Your task to perform on an android device: find which apps use the phone's location Image 0: 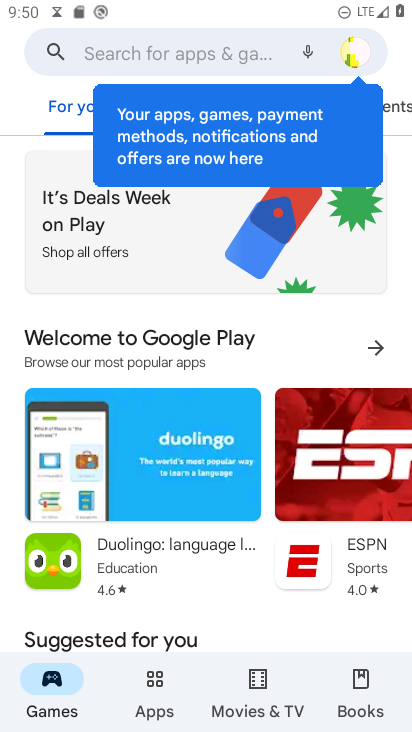
Step 0: press home button
Your task to perform on an android device: find which apps use the phone's location Image 1: 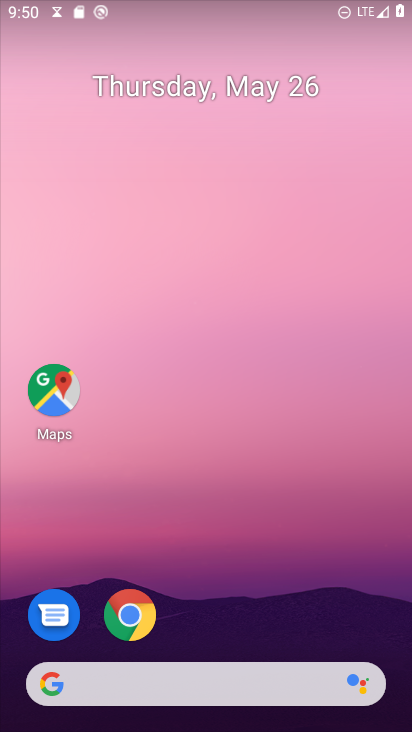
Step 1: drag from (263, 610) to (311, 239)
Your task to perform on an android device: find which apps use the phone's location Image 2: 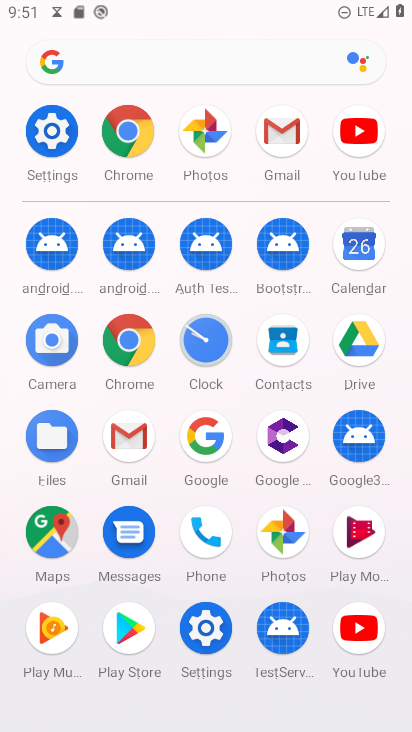
Step 2: click (54, 123)
Your task to perform on an android device: find which apps use the phone's location Image 3: 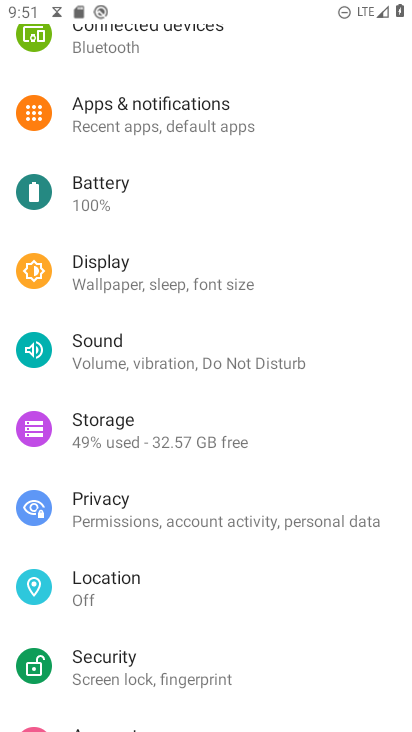
Step 3: click (142, 586)
Your task to perform on an android device: find which apps use the phone's location Image 4: 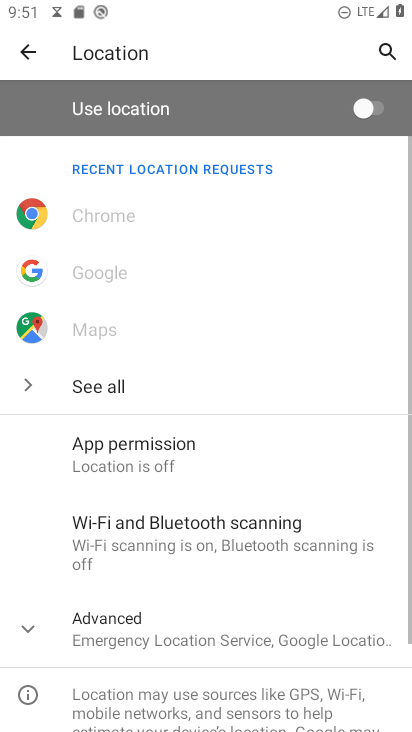
Step 4: task complete